Your task to perform on an android device: Go to Android settings Image 0: 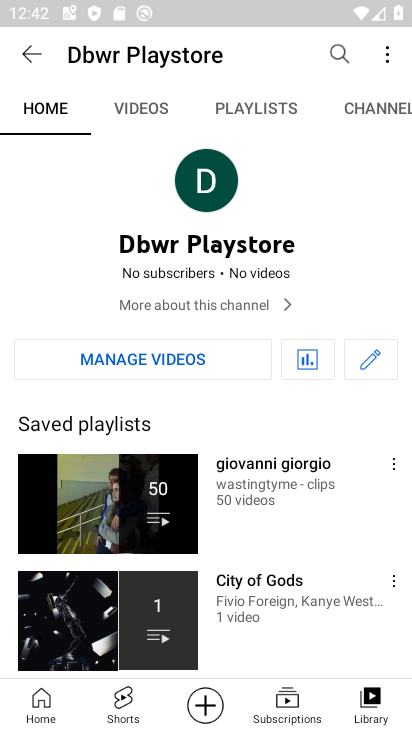
Step 0: press home button
Your task to perform on an android device: Go to Android settings Image 1: 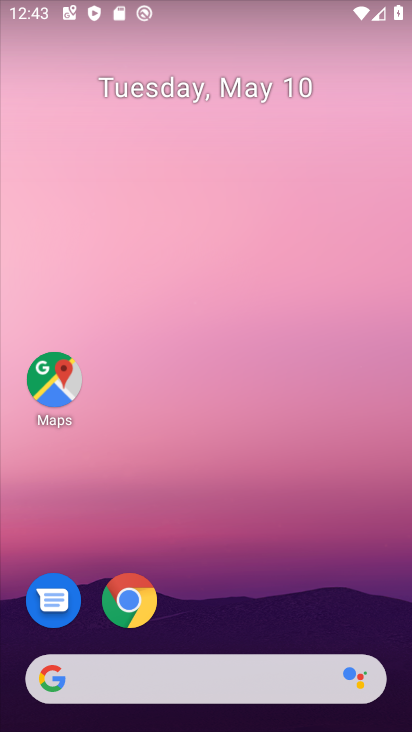
Step 1: drag from (219, 658) to (186, 188)
Your task to perform on an android device: Go to Android settings Image 2: 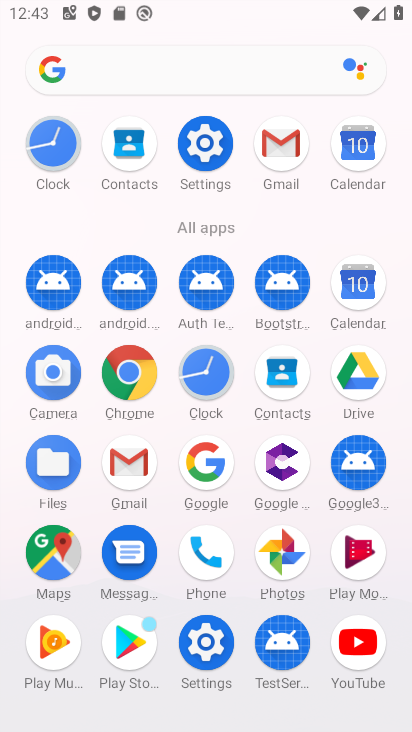
Step 2: click (210, 640)
Your task to perform on an android device: Go to Android settings Image 3: 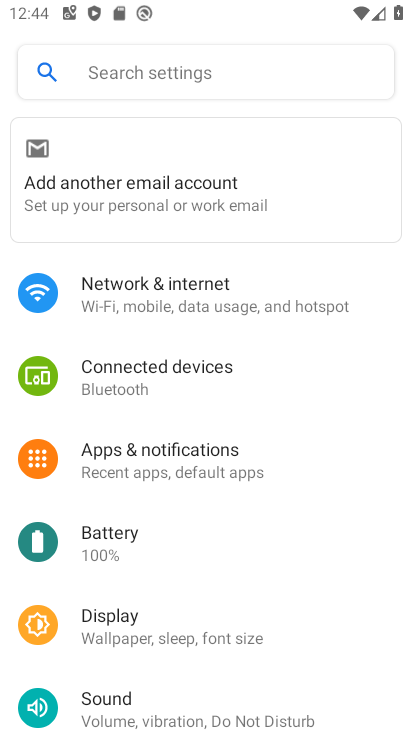
Step 3: drag from (178, 592) to (89, 107)
Your task to perform on an android device: Go to Android settings Image 4: 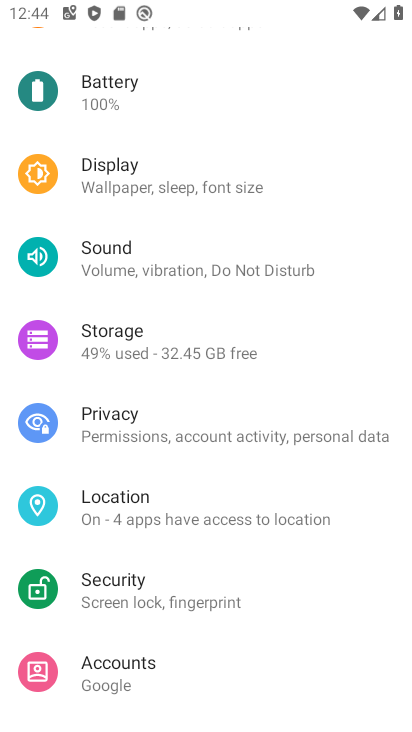
Step 4: drag from (206, 637) to (148, 159)
Your task to perform on an android device: Go to Android settings Image 5: 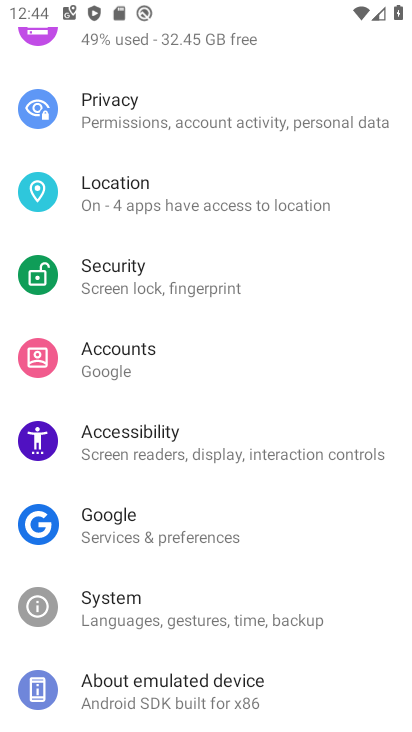
Step 5: drag from (238, 501) to (206, 91)
Your task to perform on an android device: Go to Android settings Image 6: 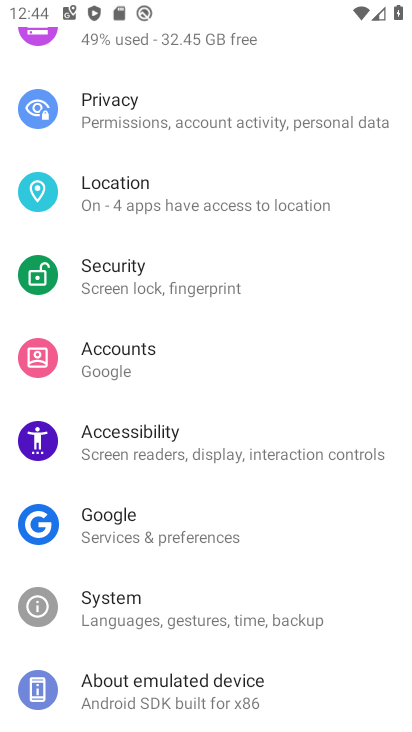
Step 6: click (246, 684)
Your task to perform on an android device: Go to Android settings Image 7: 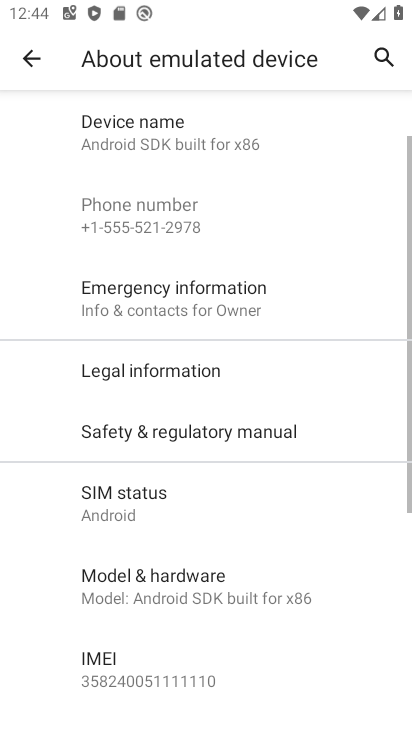
Step 7: drag from (229, 632) to (117, 34)
Your task to perform on an android device: Go to Android settings Image 8: 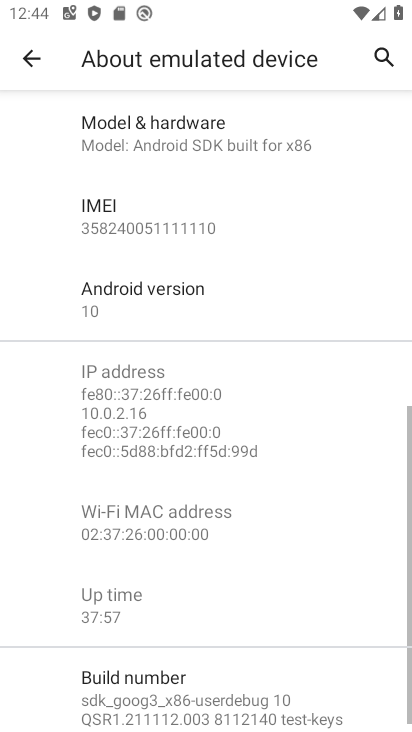
Step 8: click (250, 311)
Your task to perform on an android device: Go to Android settings Image 9: 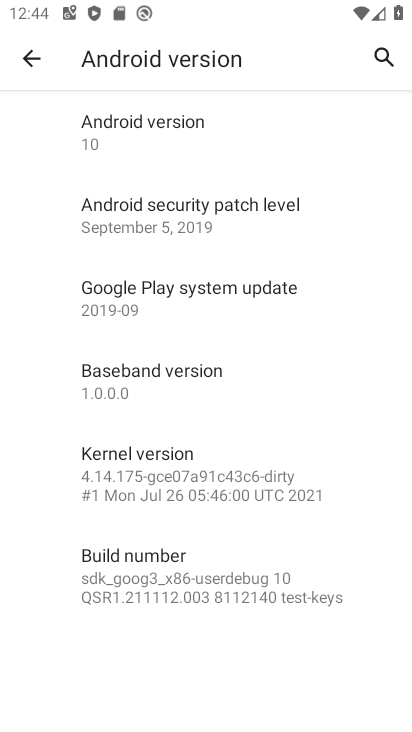
Step 9: task complete